Your task to perform on an android device: Open CNN.com Image 0: 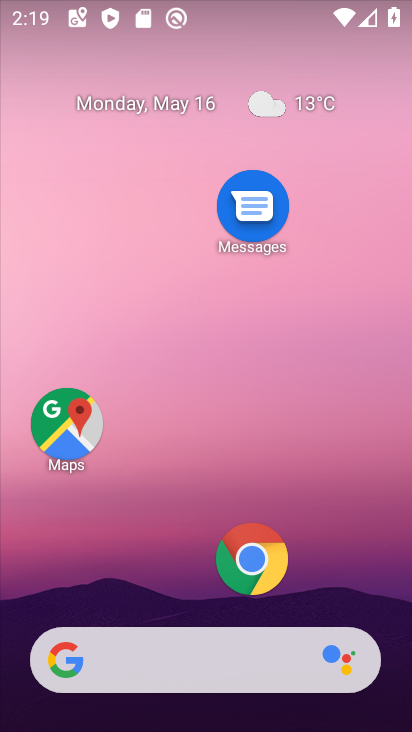
Step 0: click (253, 558)
Your task to perform on an android device: Open CNN.com Image 1: 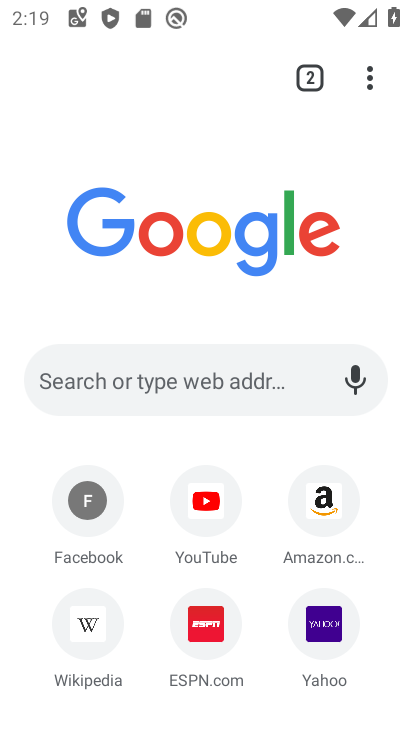
Step 1: click (159, 387)
Your task to perform on an android device: Open CNN.com Image 2: 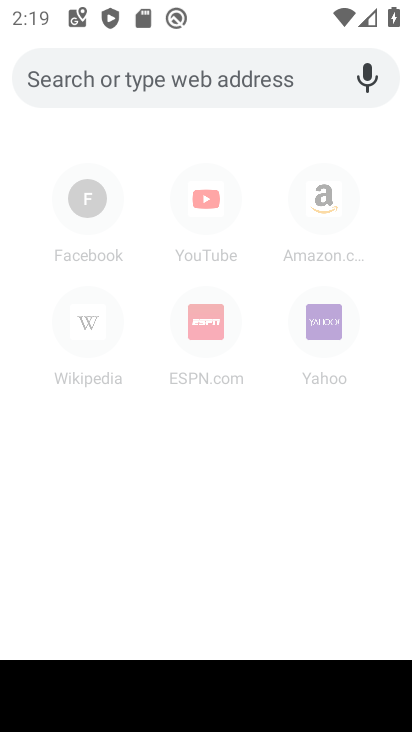
Step 2: type "CNN.com"
Your task to perform on an android device: Open CNN.com Image 3: 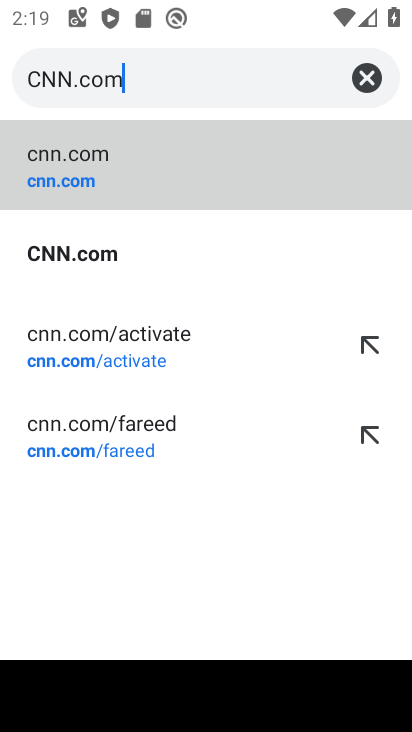
Step 3: click (85, 254)
Your task to perform on an android device: Open CNN.com Image 4: 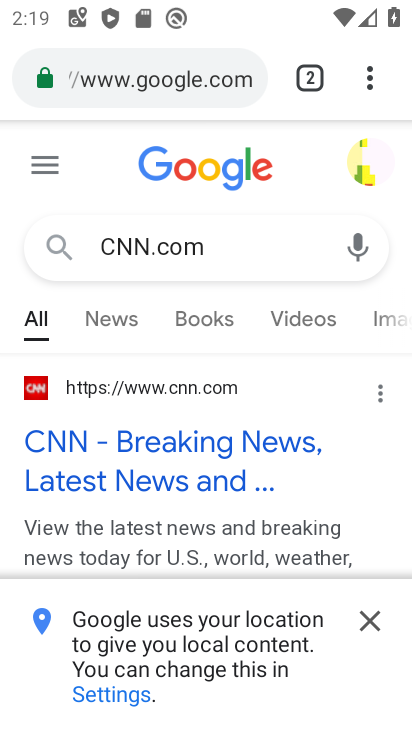
Step 4: task complete